Your task to perform on an android device: Open the calendar app, open the side menu, and click the "Day" option Image 0: 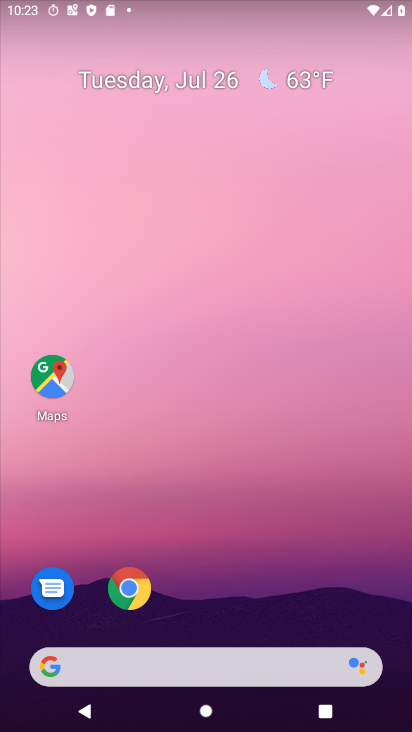
Step 0: click (154, 97)
Your task to perform on an android device: Open the calendar app, open the side menu, and click the "Day" option Image 1: 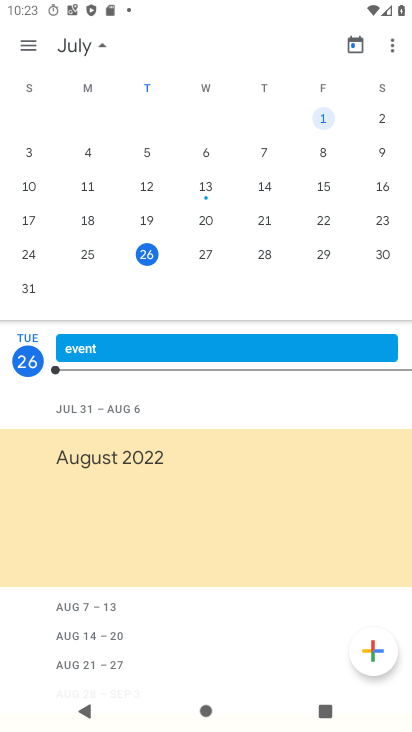
Step 1: click (36, 50)
Your task to perform on an android device: Open the calendar app, open the side menu, and click the "Day" option Image 2: 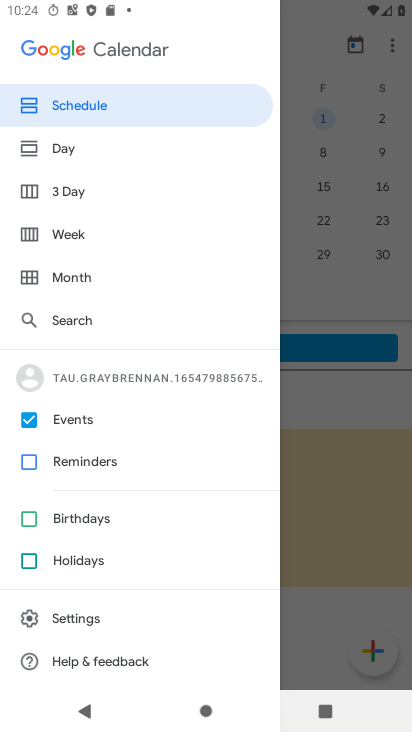
Step 2: click (86, 139)
Your task to perform on an android device: Open the calendar app, open the side menu, and click the "Day" option Image 3: 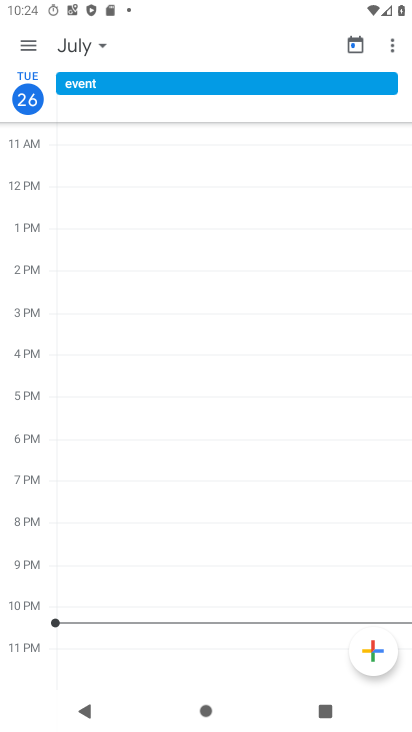
Step 3: task complete